Your task to perform on an android device: turn off airplane mode Image 0: 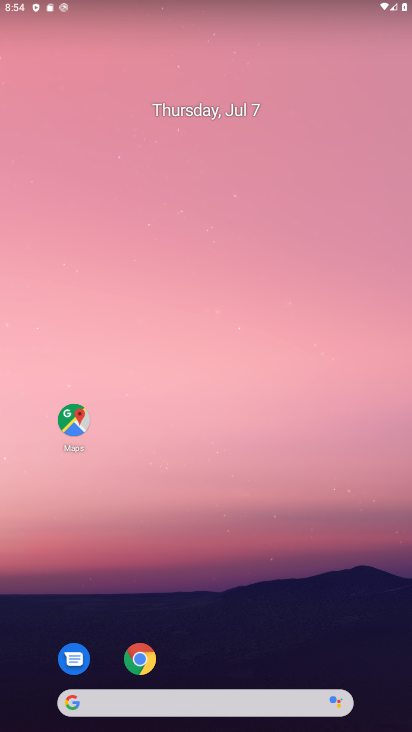
Step 0: drag from (242, 663) to (234, 9)
Your task to perform on an android device: turn off airplane mode Image 1: 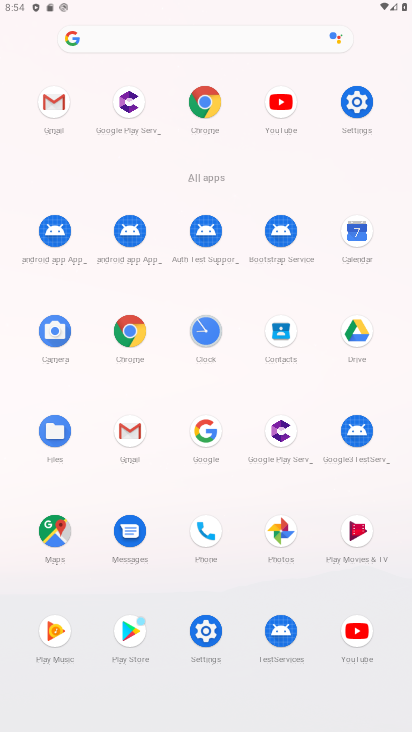
Step 1: click (203, 638)
Your task to perform on an android device: turn off airplane mode Image 2: 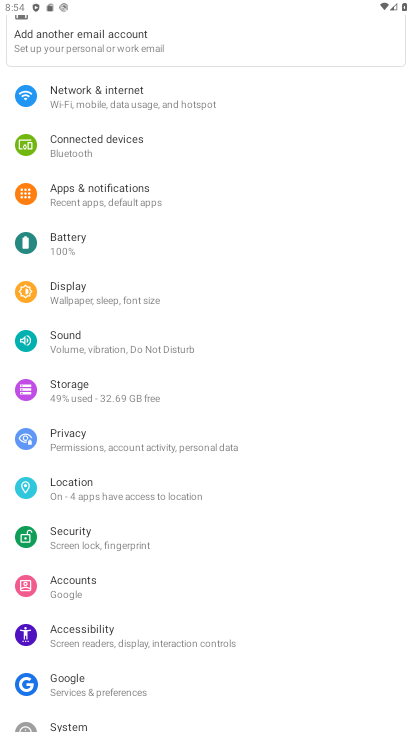
Step 2: click (166, 105)
Your task to perform on an android device: turn off airplane mode Image 3: 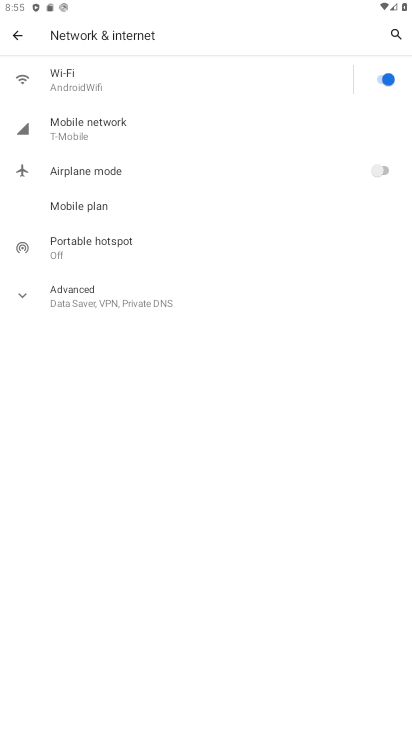
Step 3: task complete